Your task to perform on an android device: What's on my calendar tomorrow? Image 0: 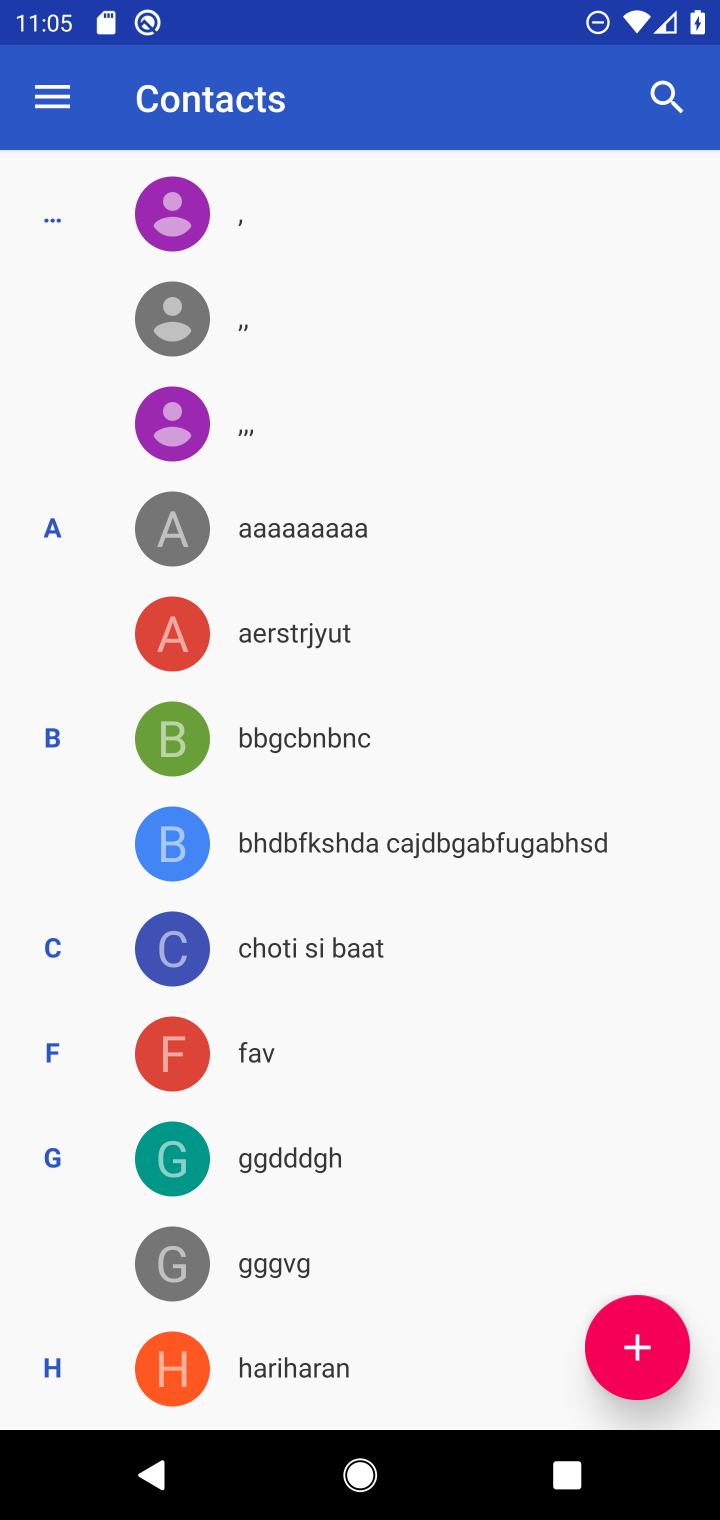
Step 0: press home button
Your task to perform on an android device: What's on my calendar tomorrow? Image 1: 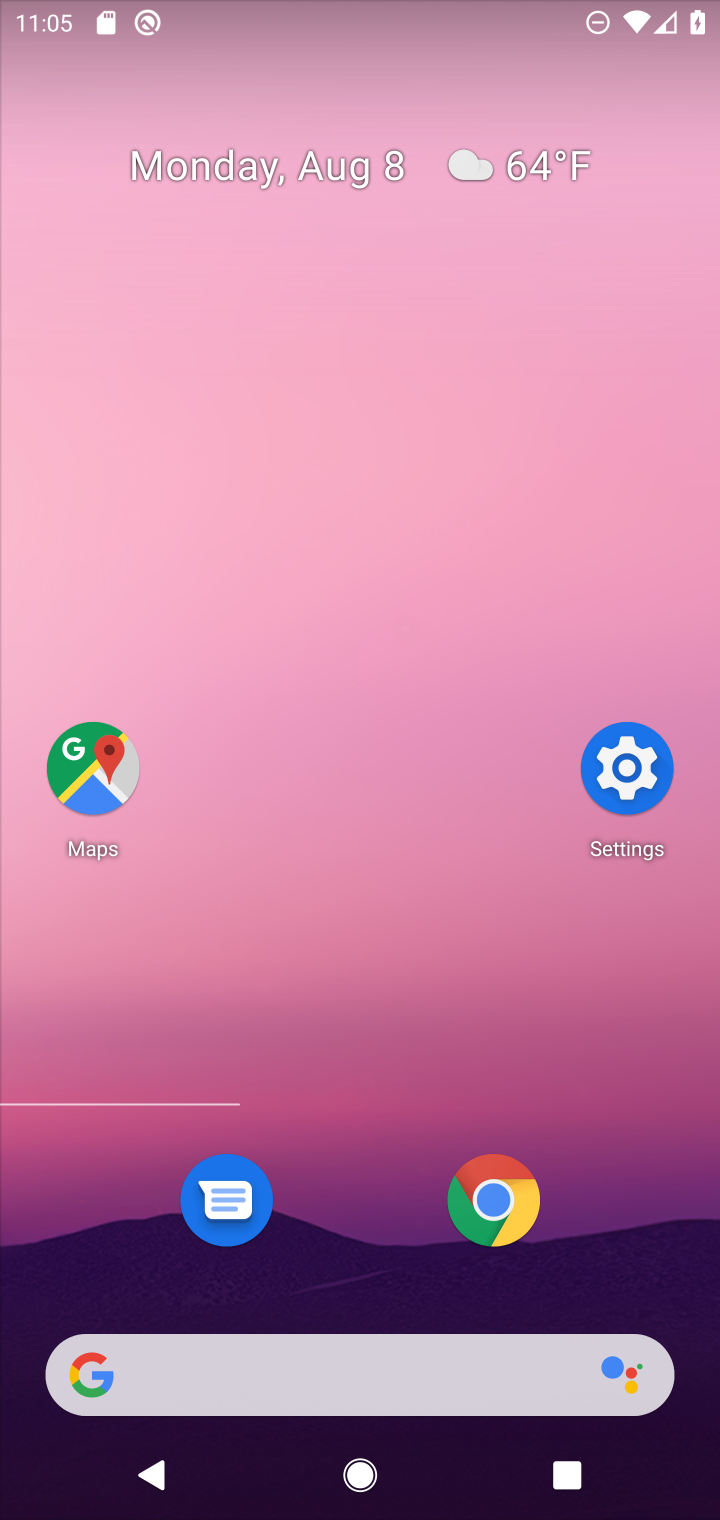
Step 1: drag from (402, 1009) to (461, 125)
Your task to perform on an android device: What's on my calendar tomorrow? Image 2: 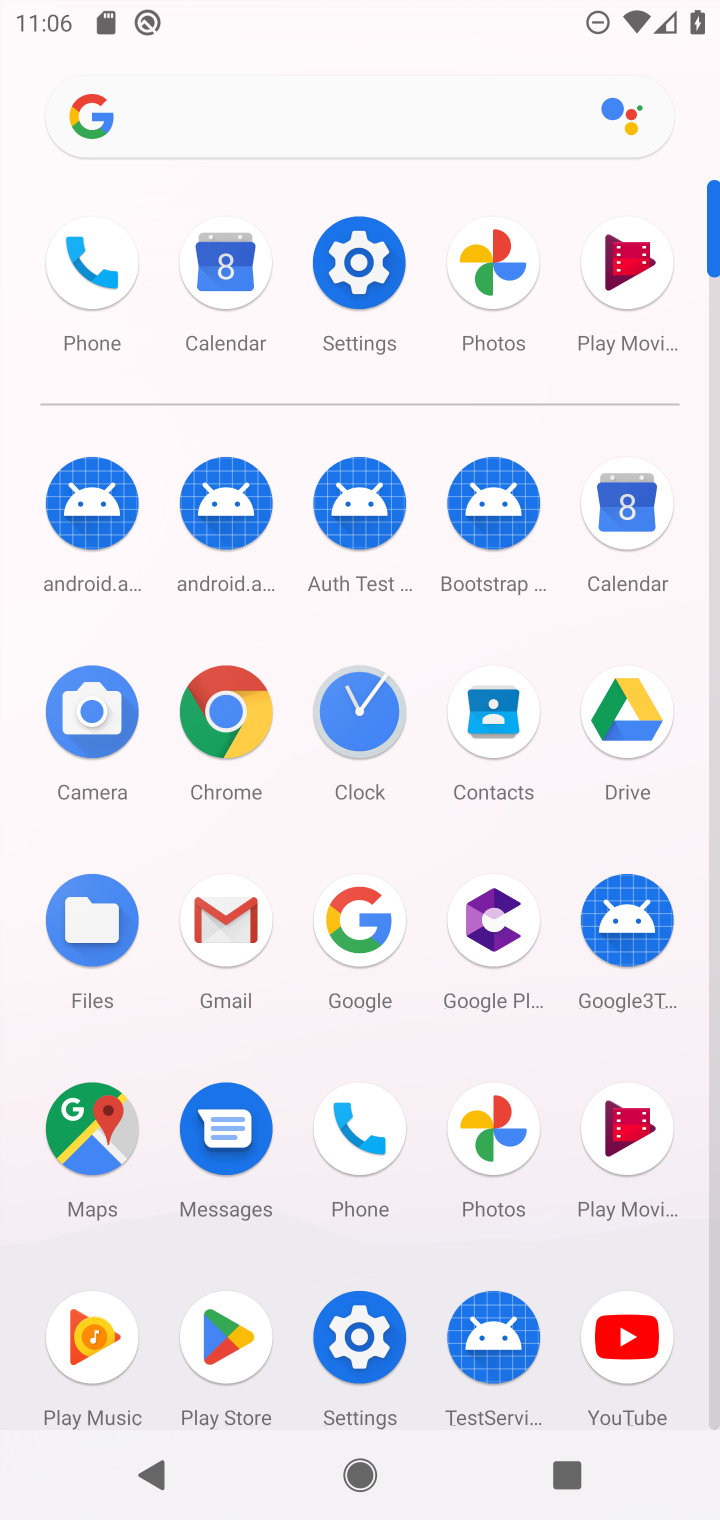
Step 2: click (617, 509)
Your task to perform on an android device: What's on my calendar tomorrow? Image 3: 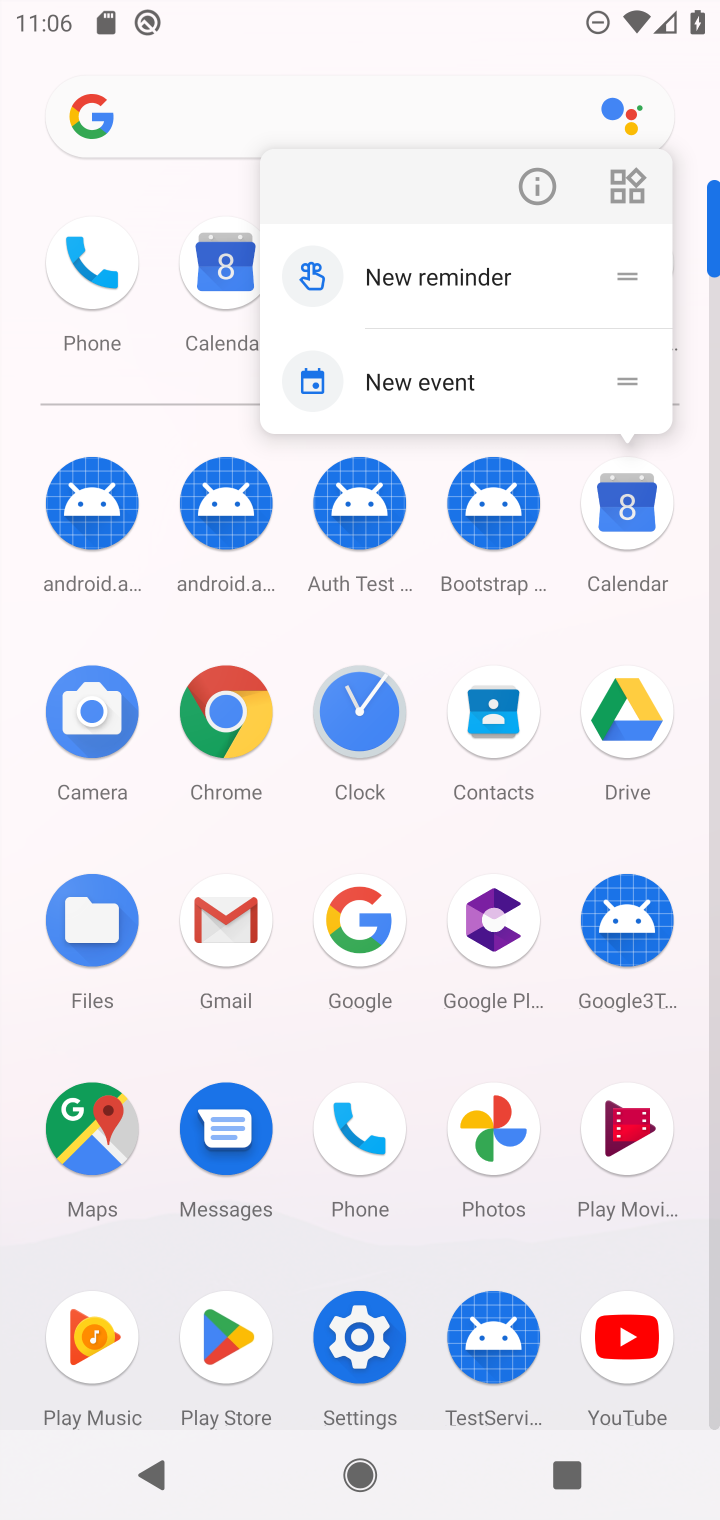
Step 3: click (636, 503)
Your task to perform on an android device: What's on my calendar tomorrow? Image 4: 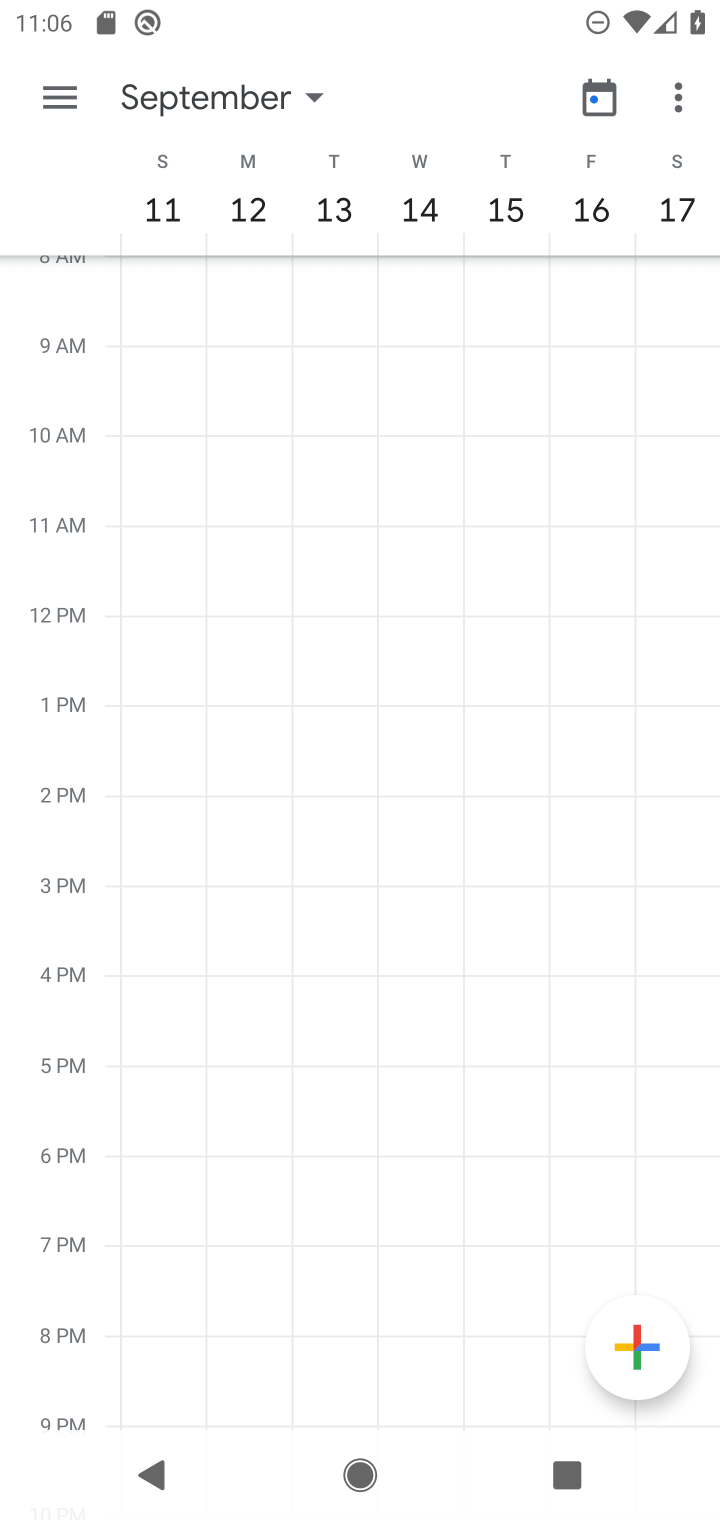
Step 4: drag from (137, 205) to (680, 196)
Your task to perform on an android device: What's on my calendar tomorrow? Image 5: 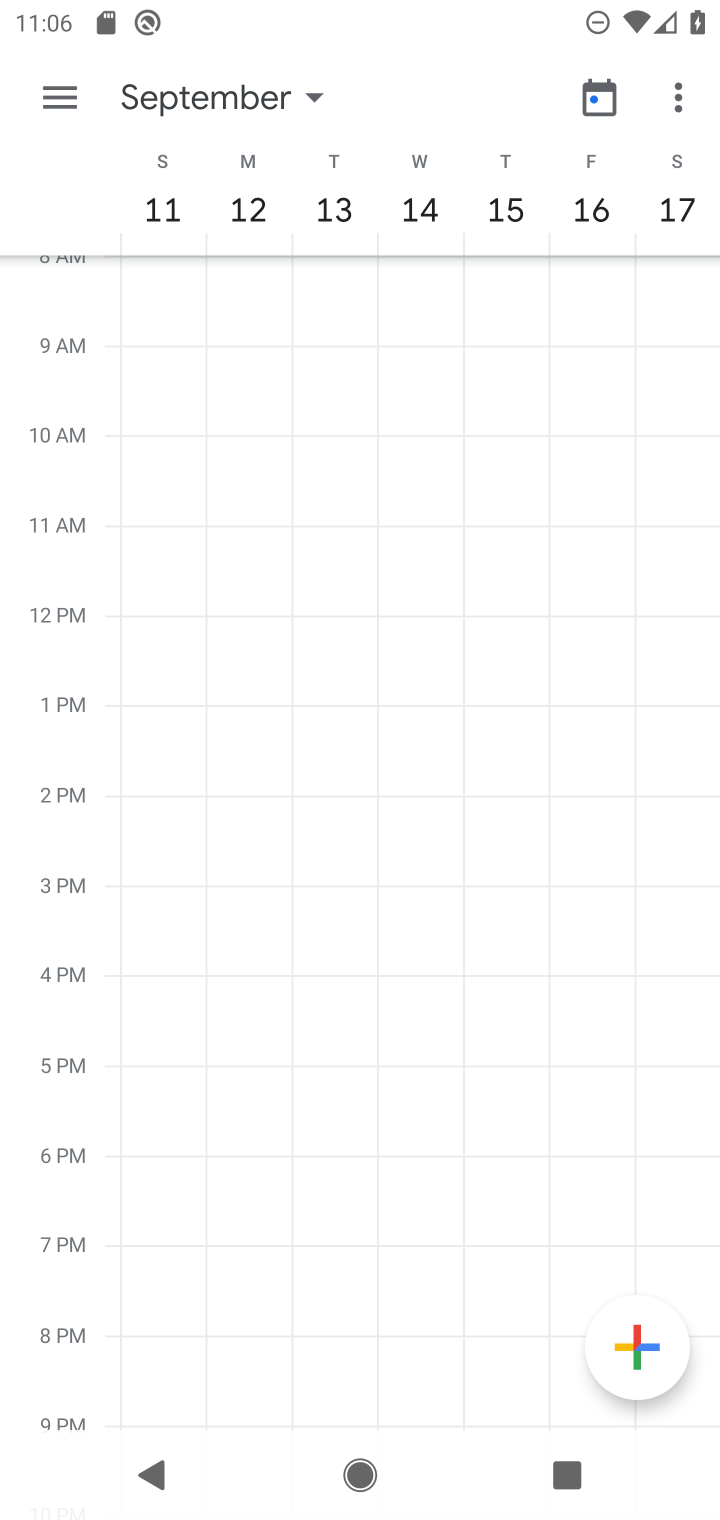
Step 5: drag from (120, 167) to (703, 202)
Your task to perform on an android device: What's on my calendar tomorrow? Image 6: 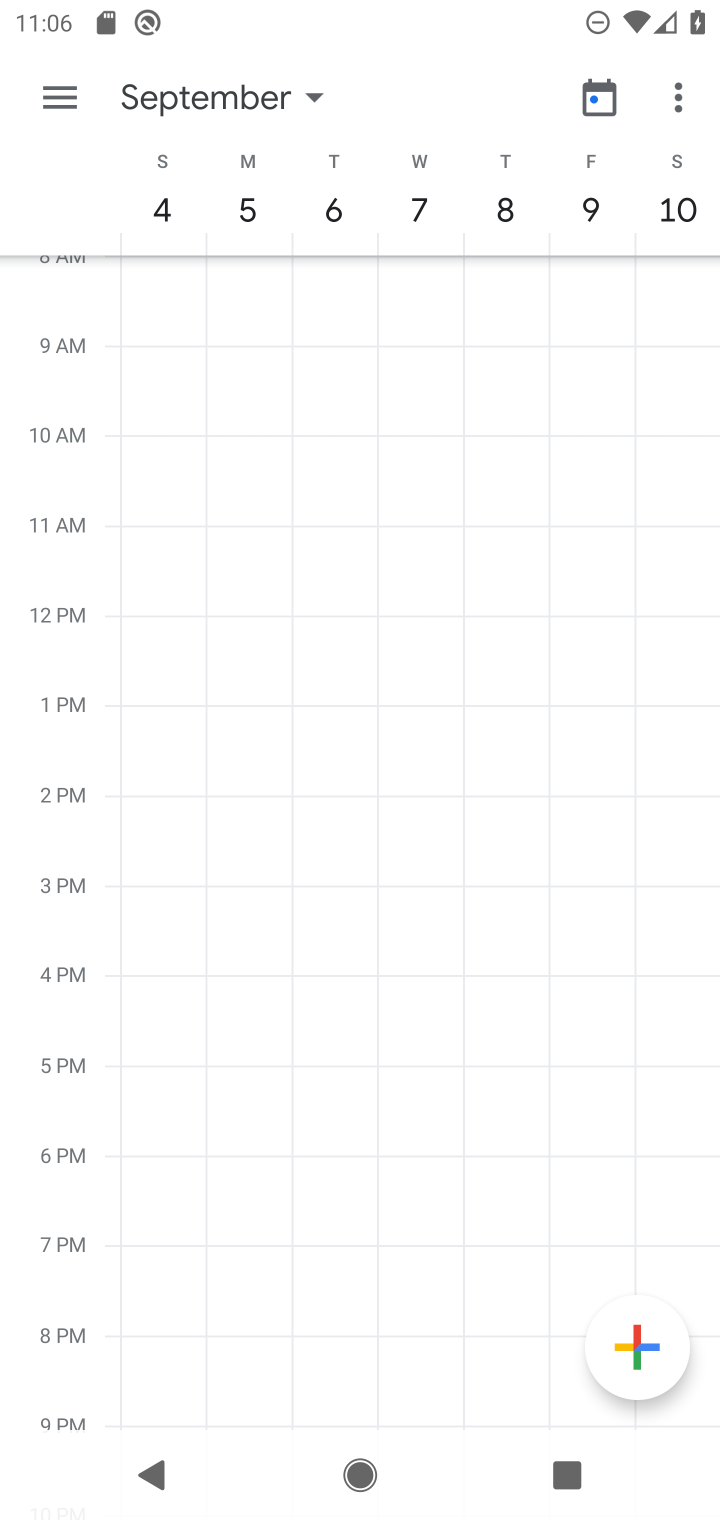
Step 6: drag from (115, 164) to (715, 107)
Your task to perform on an android device: What's on my calendar tomorrow? Image 7: 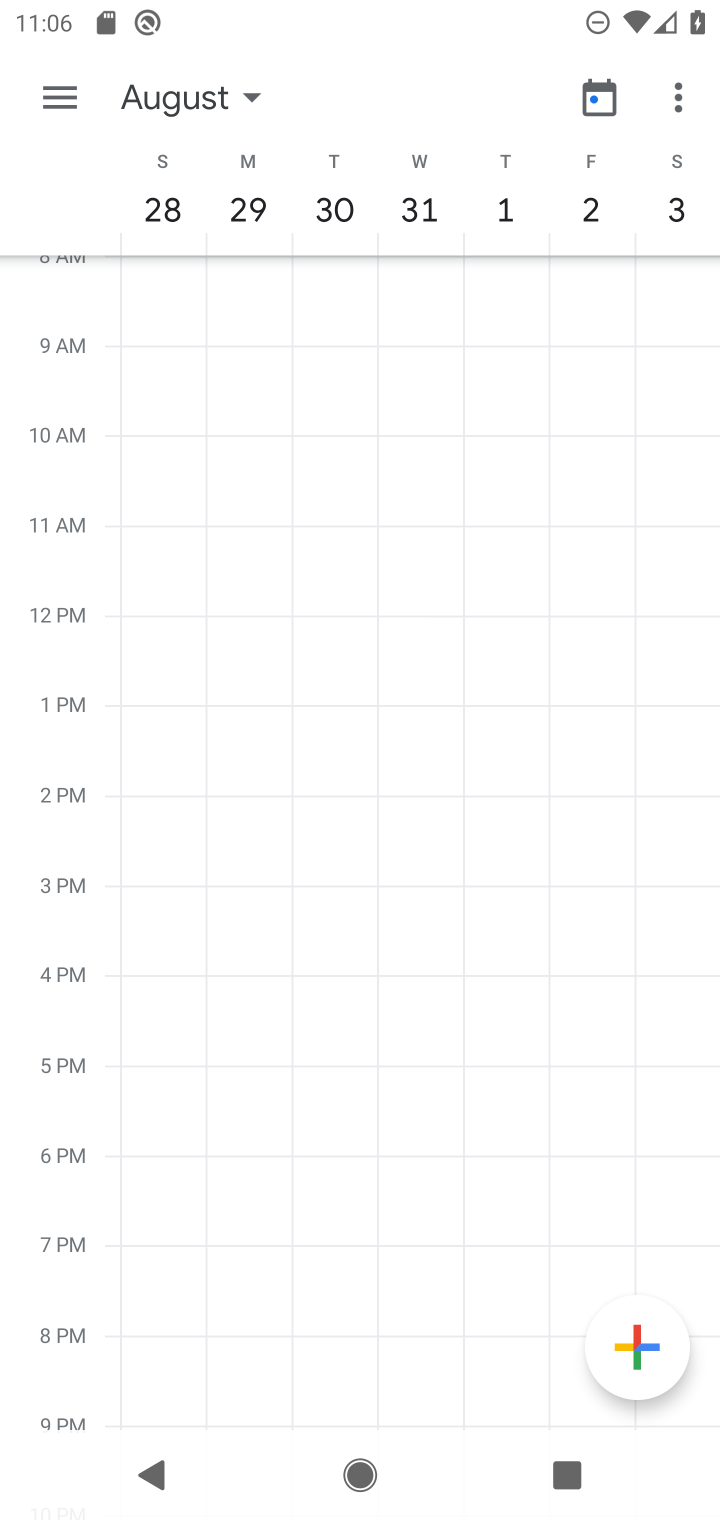
Step 7: click (167, 99)
Your task to perform on an android device: What's on my calendar tomorrow? Image 8: 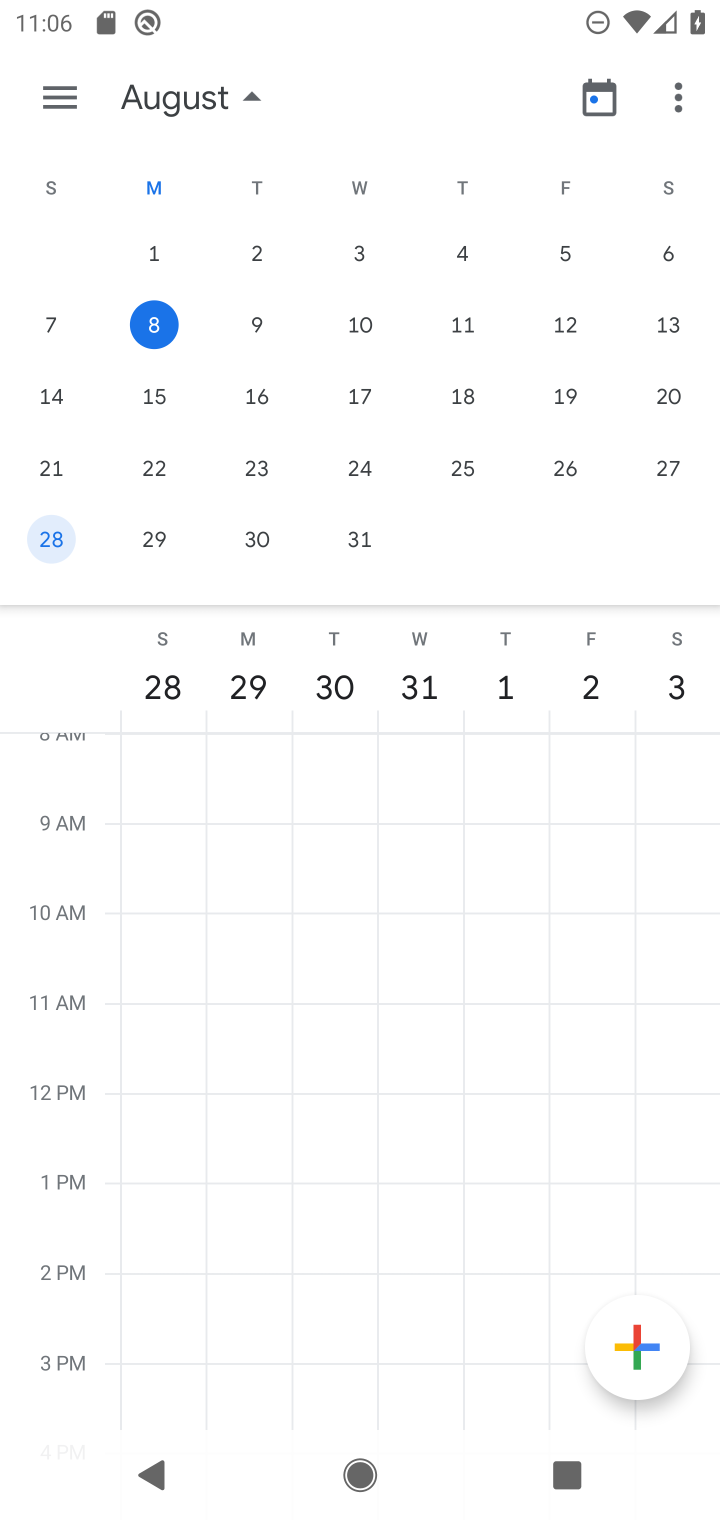
Step 8: click (255, 325)
Your task to perform on an android device: What's on my calendar tomorrow? Image 9: 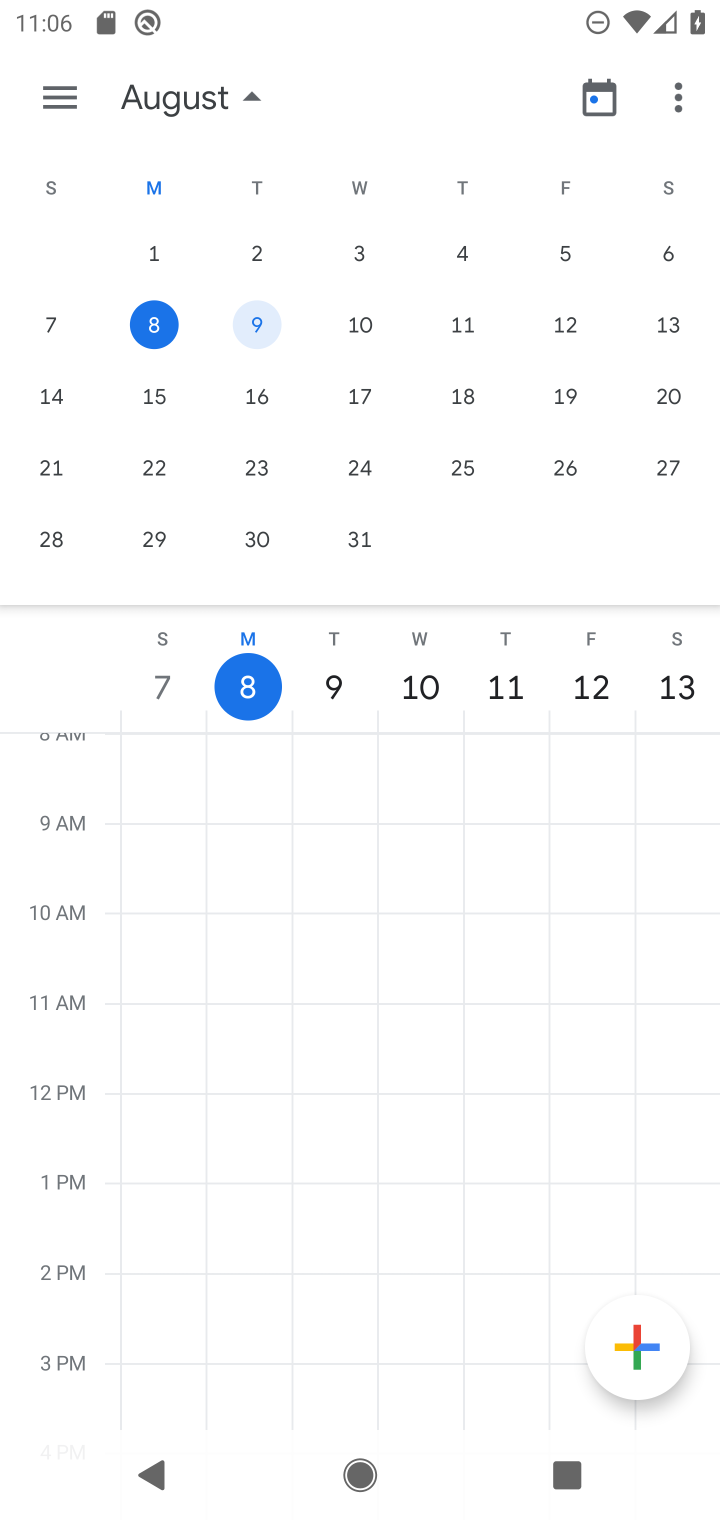
Step 9: click (64, 96)
Your task to perform on an android device: What's on my calendar tomorrow? Image 10: 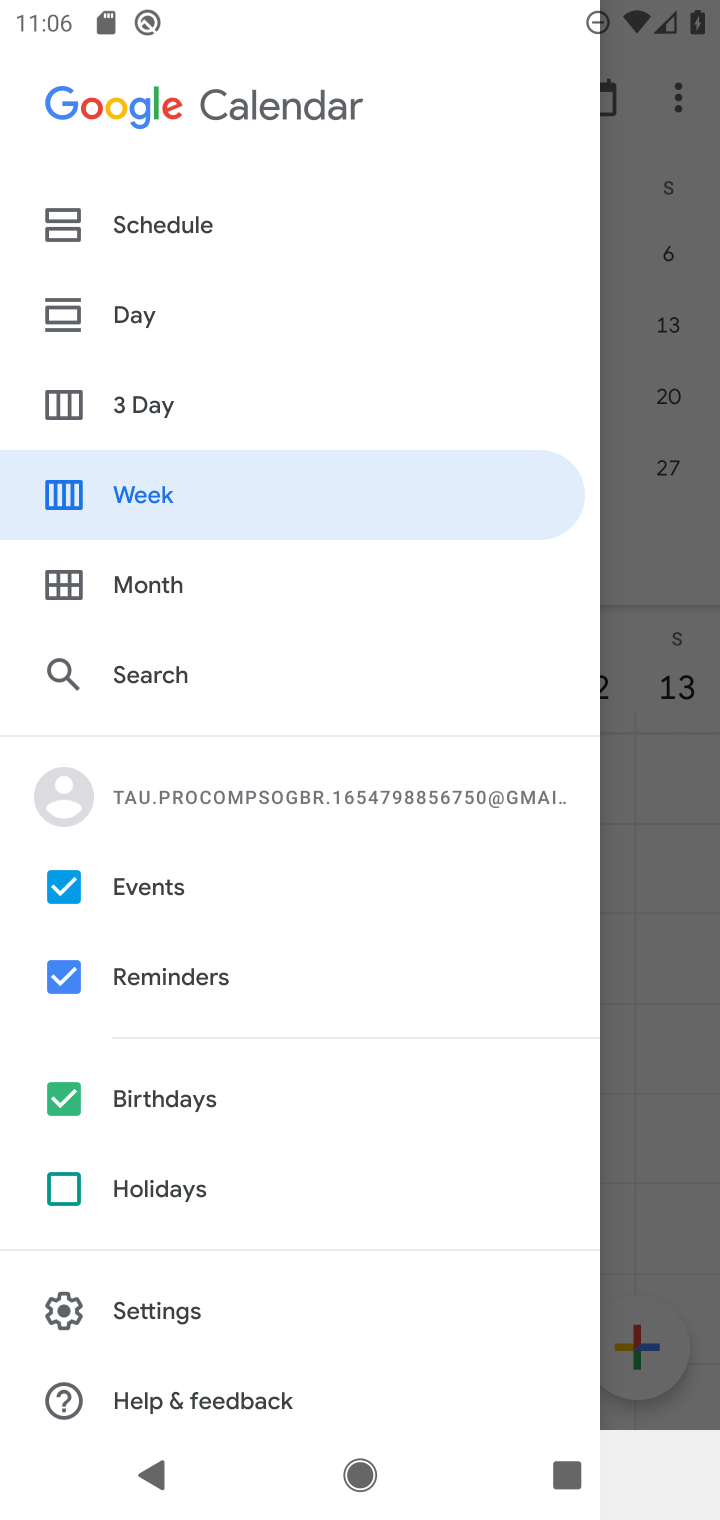
Step 10: click (213, 314)
Your task to perform on an android device: What's on my calendar tomorrow? Image 11: 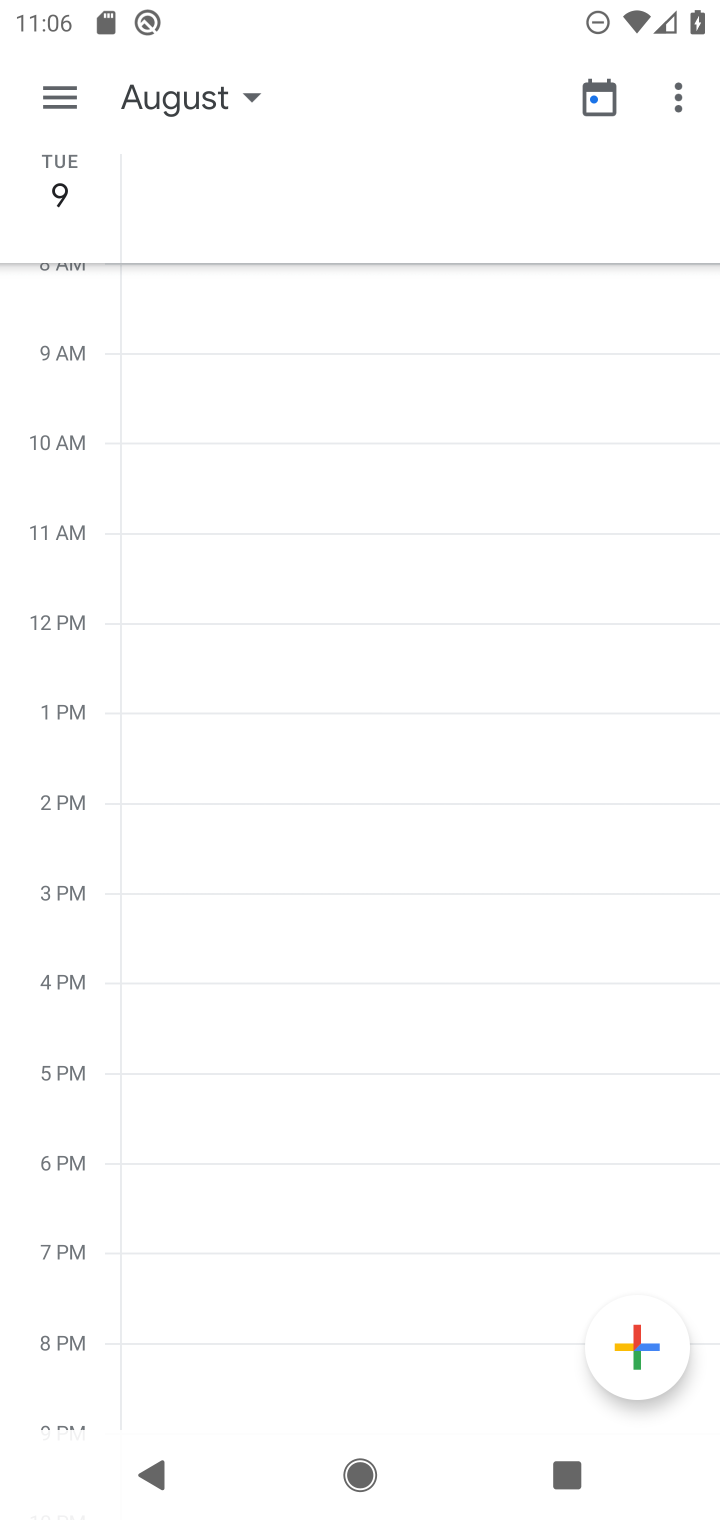
Step 11: click (50, 96)
Your task to perform on an android device: What's on my calendar tomorrow? Image 12: 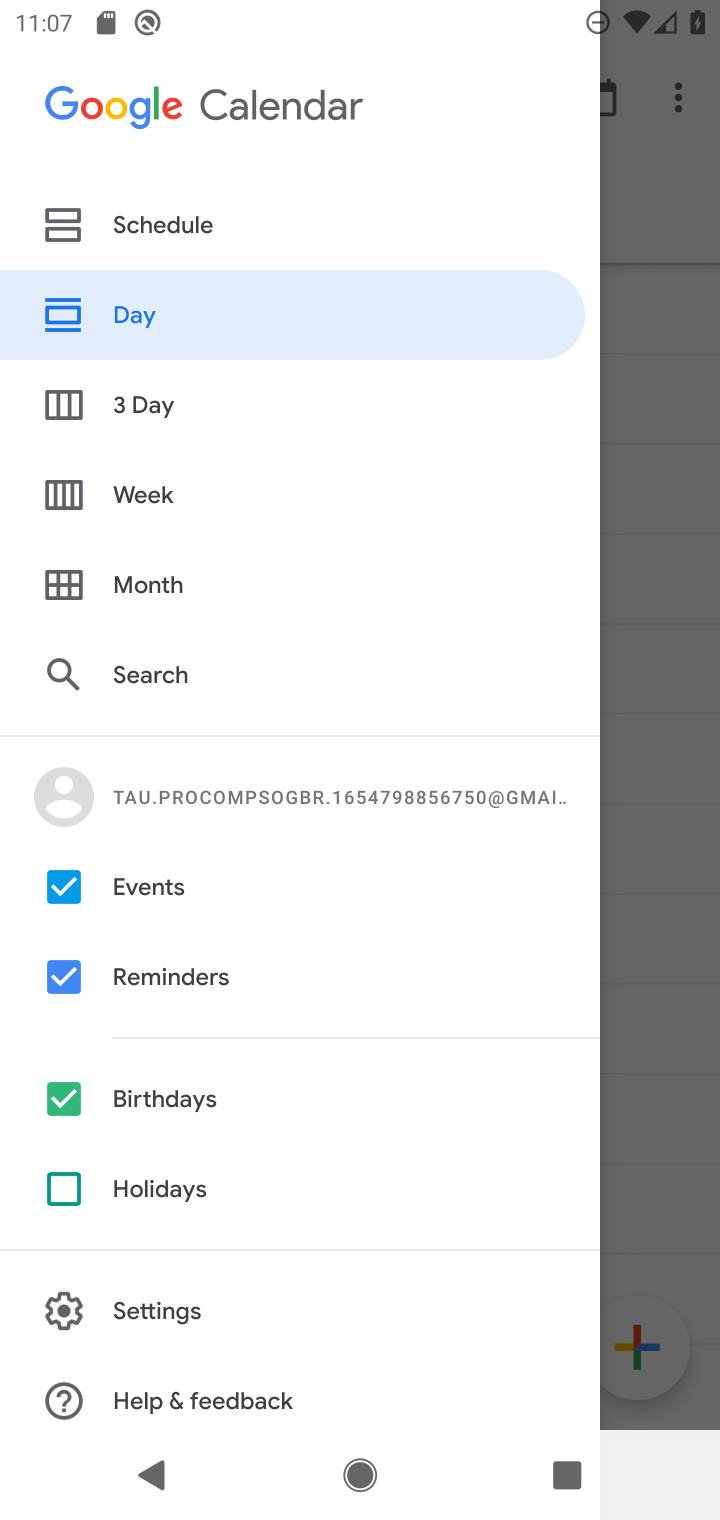
Step 12: click (165, 219)
Your task to perform on an android device: What's on my calendar tomorrow? Image 13: 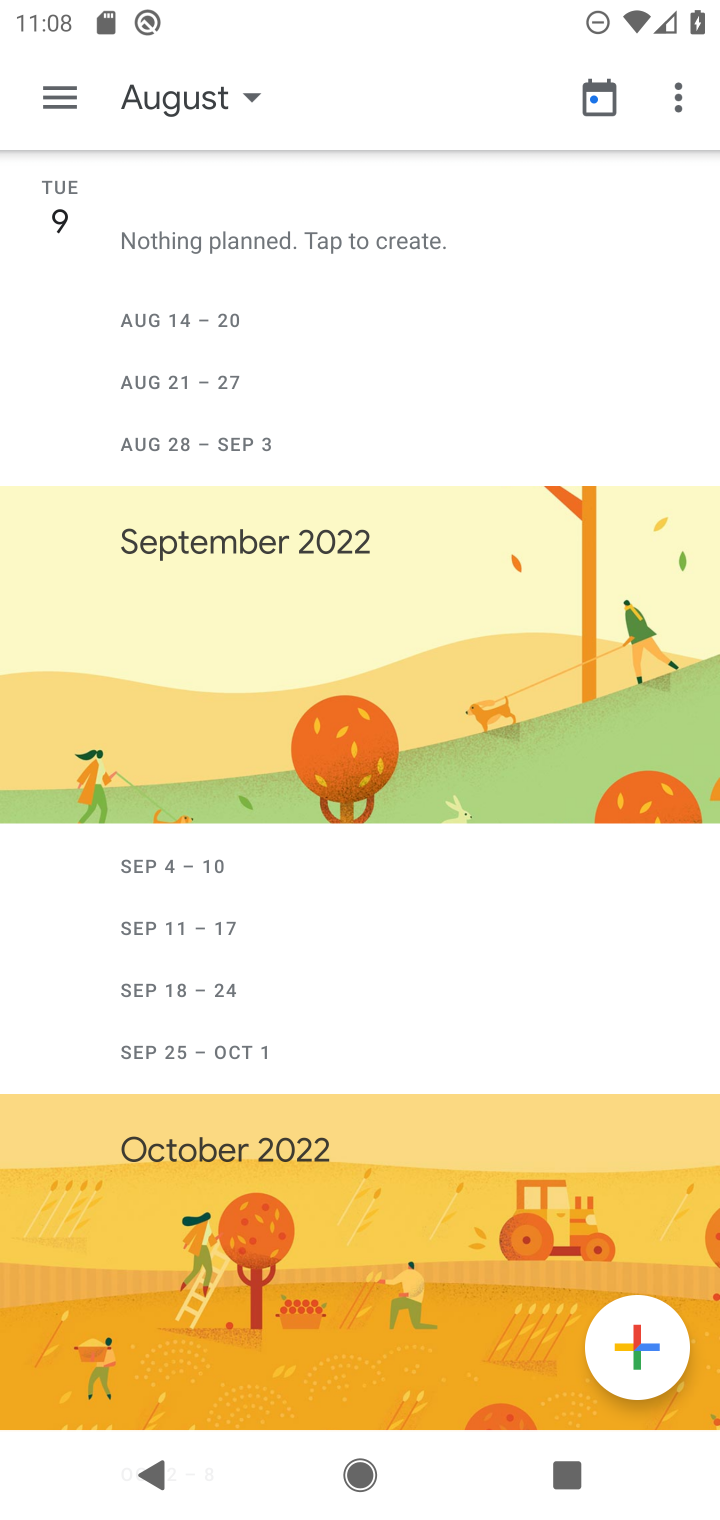
Step 13: task complete